Your task to perform on an android device: toggle translation in the chrome app Image 0: 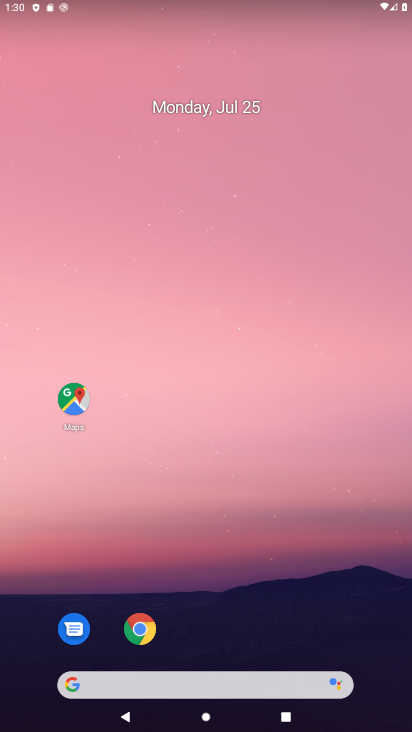
Step 0: drag from (181, 633) to (203, 13)
Your task to perform on an android device: toggle translation in the chrome app Image 1: 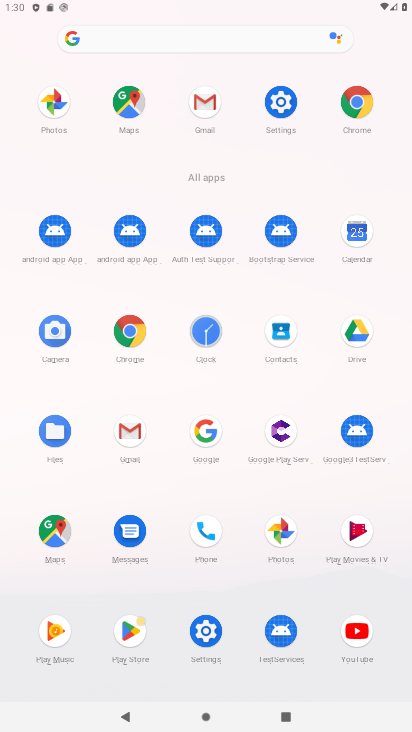
Step 1: click (129, 325)
Your task to perform on an android device: toggle translation in the chrome app Image 2: 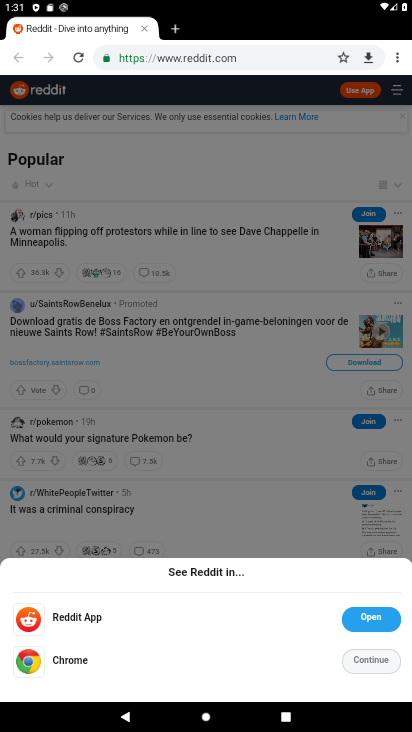
Step 2: drag from (236, 639) to (276, 216)
Your task to perform on an android device: toggle translation in the chrome app Image 3: 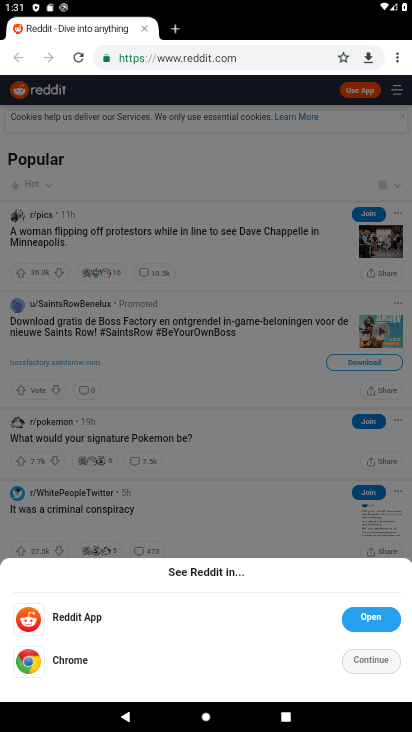
Step 3: drag from (399, 54) to (298, 424)
Your task to perform on an android device: toggle translation in the chrome app Image 4: 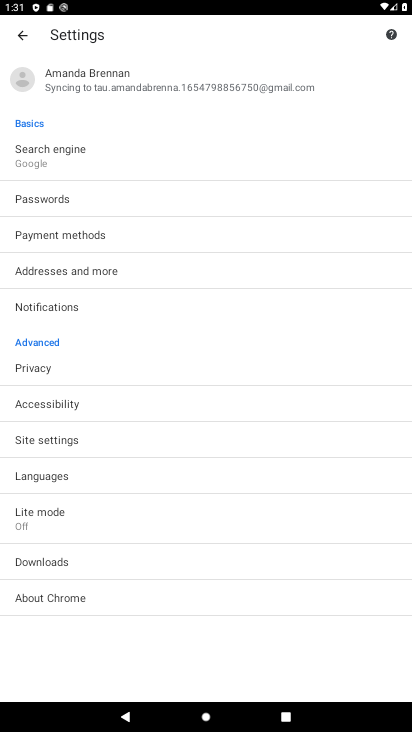
Step 4: drag from (138, 435) to (246, 75)
Your task to perform on an android device: toggle translation in the chrome app Image 5: 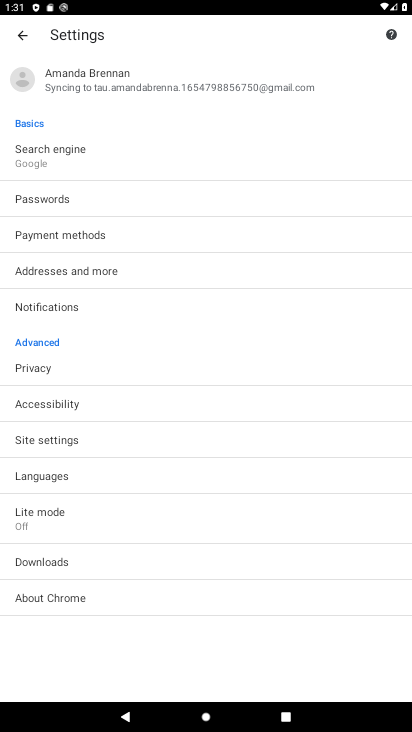
Step 5: drag from (188, 495) to (197, 549)
Your task to perform on an android device: toggle translation in the chrome app Image 6: 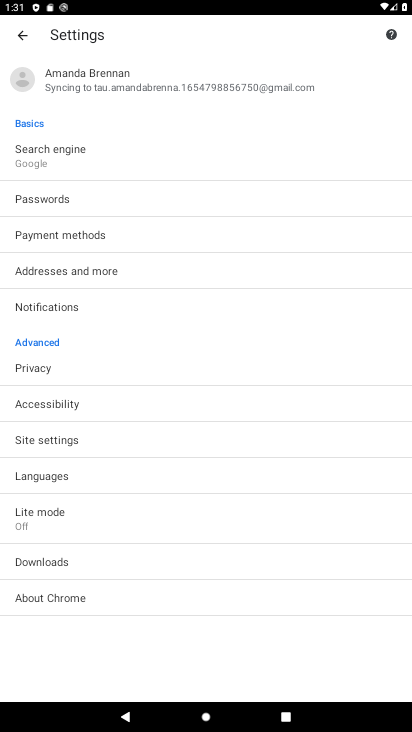
Step 6: click (75, 441)
Your task to perform on an android device: toggle translation in the chrome app Image 7: 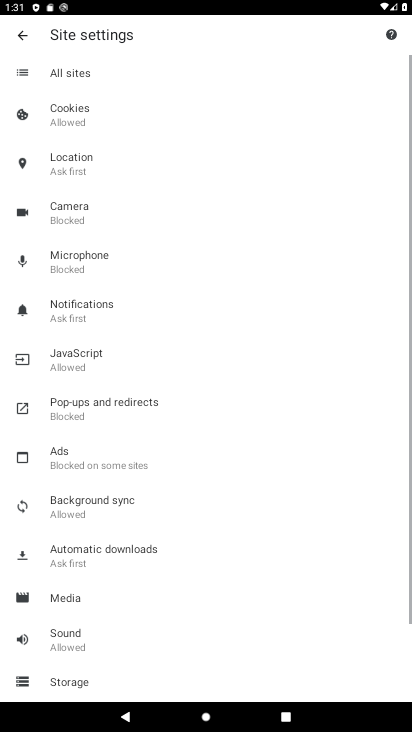
Step 7: drag from (186, 517) to (236, 231)
Your task to perform on an android device: toggle translation in the chrome app Image 8: 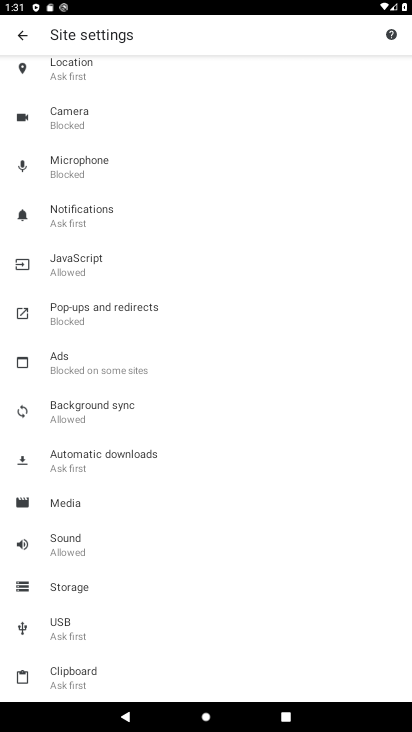
Step 8: click (21, 38)
Your task to perform on an android device: toggle translation in the chrome app Image 9: 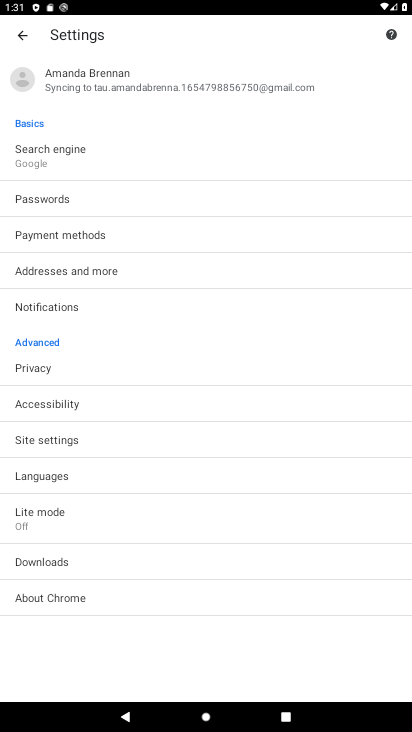
Step 9: click (56, 472)
Your task to perform on an android device: toggle translation in the chrome app Image 10: 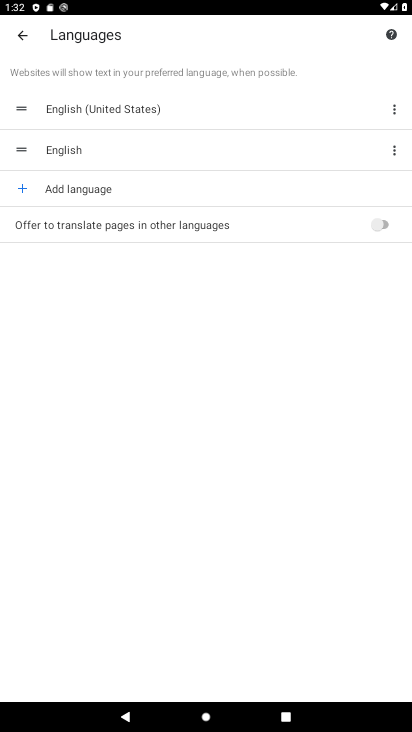
Step 10: click (263, 221)
Your task to perform on an android device: toggle translation in the chrome app Image 11: 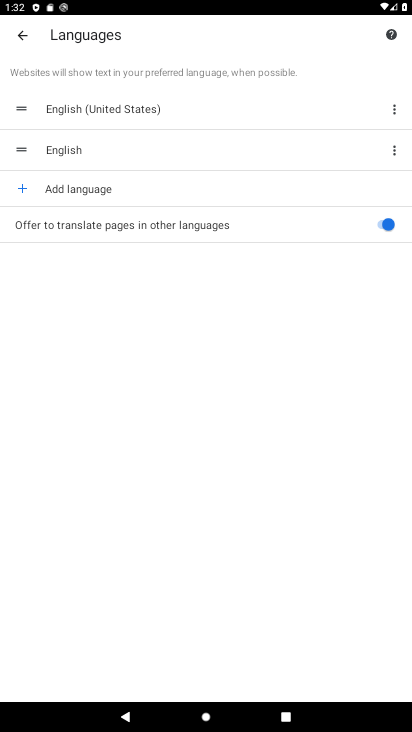
Step 11: task complete